Your task to perform on an android device: When is my next appointment? Image 0: 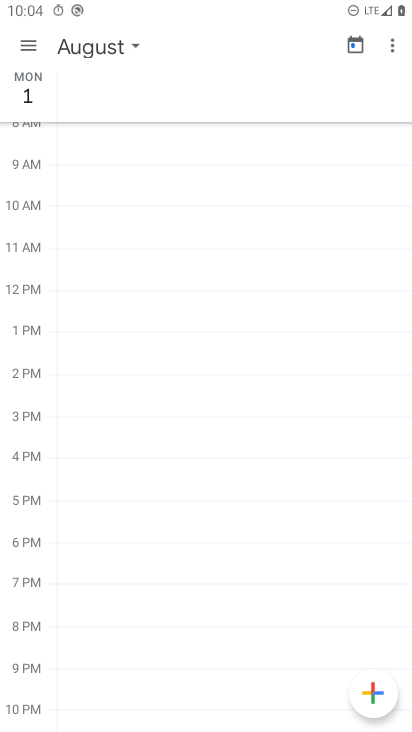
Step 0: press home button
Your task to perform on an android device: When is my next appointment? Image 1: 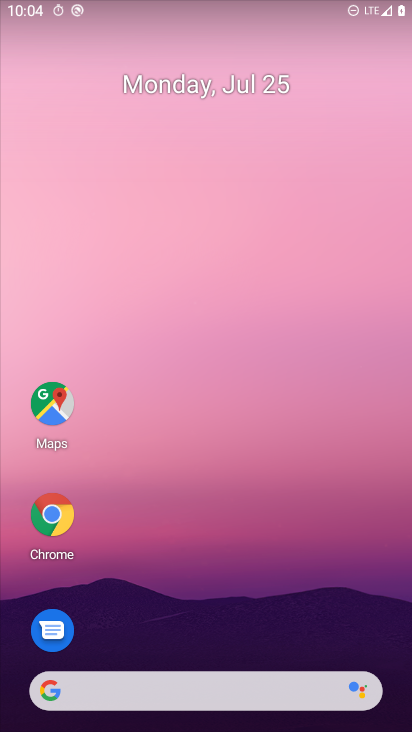
Step 1: drag from (28, 674) to (250, 183)
Your task to perform on an android device: When is my next appointment? Image 2: 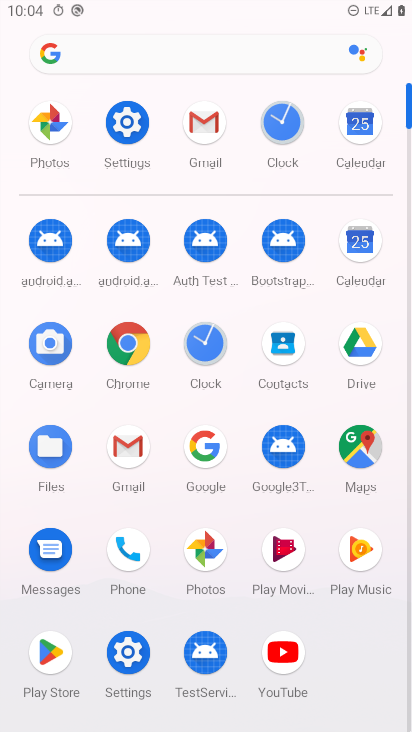
Step 2: click (360, 255)
Your task to perform on an android device: When is my next appointment? Image 3: 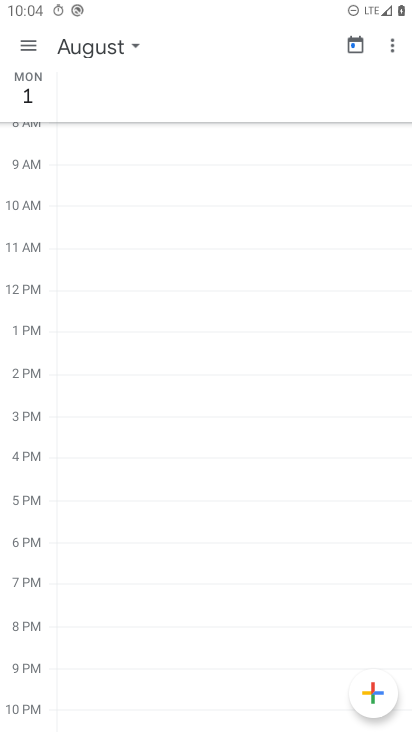
Step 3: click (105, 36)
Your task to perform on an android device: When is my next appointment? Image 4: 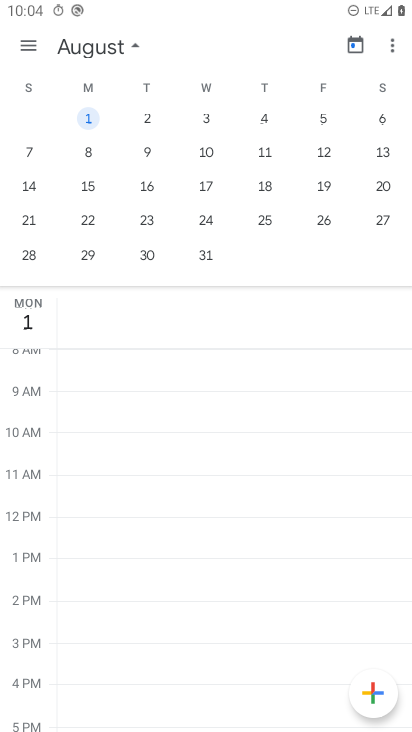
Step 4: drag from (14, 148) to (411, 284)
Your task to perform on an android device: When is my next appointment? Image 5: 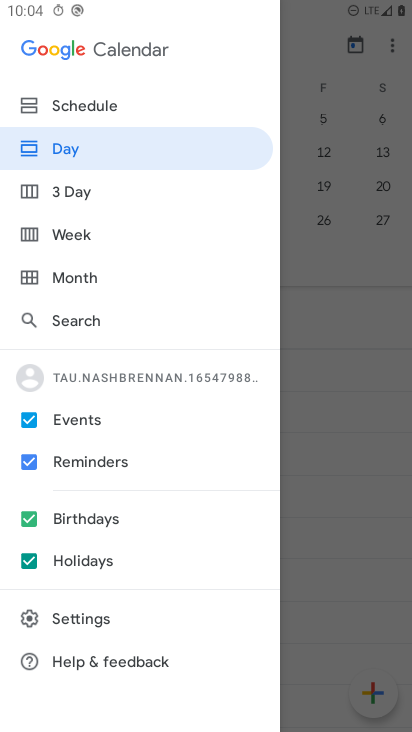
Step 5: click (349, 264)
Your task to perform on an android device: When is my next appointment? Image 6: 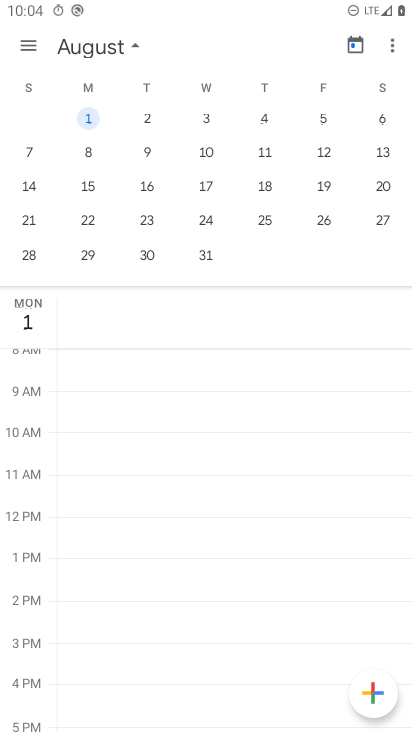
Step 6: drag from (17, 131) to (352, 131)
Your task to perform on an android device: When is my next appointment? Image 7: 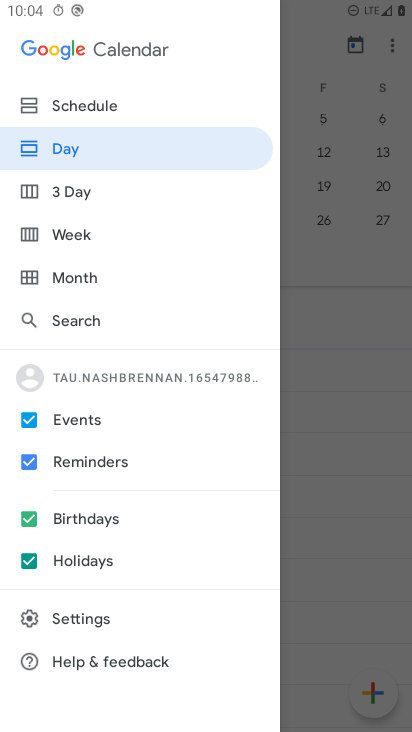
Step 7: click (321, 291)
Your task to perform on an android device: When is my next appointment? Image 8: 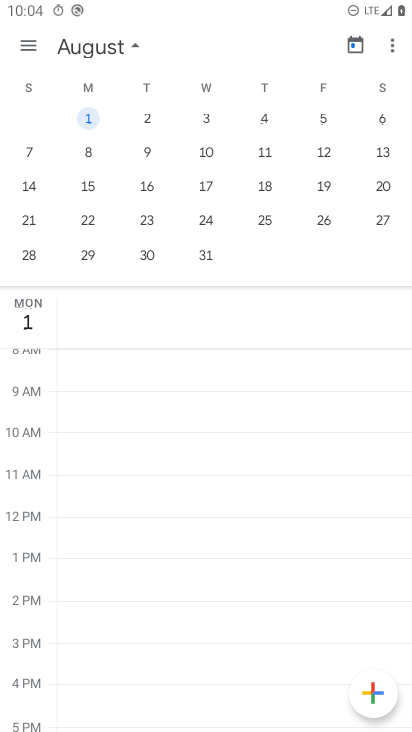
Step 8: drag from (35, 100) to (331, 192)
Your task to perform on an android device: When is my next appointment? Image 9: 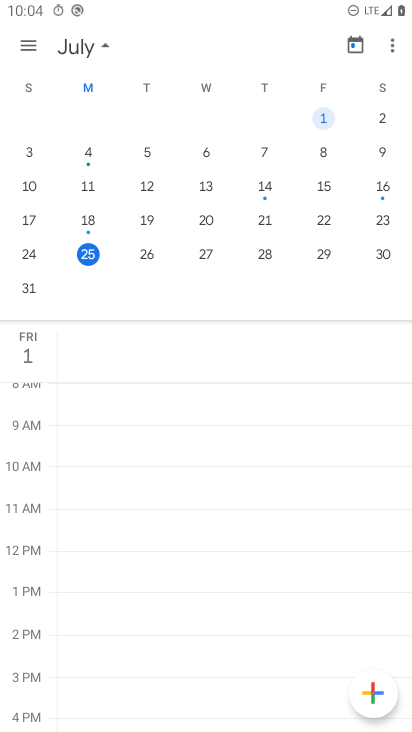
Step 9: click (25, 51)
Your task to perform on an android device: When is my next appointment? Image 10: 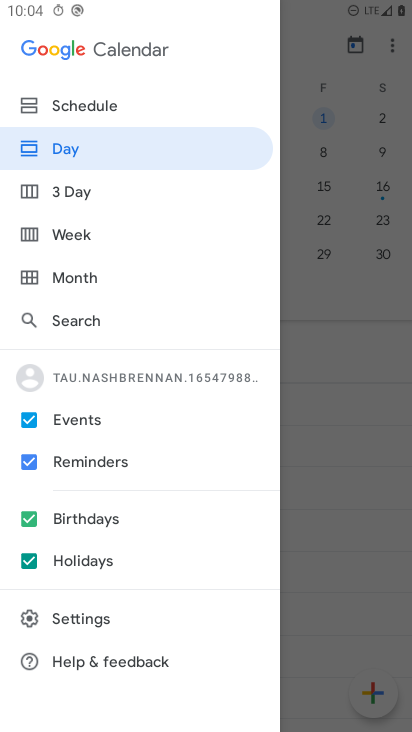
Step 10: task complete